Your task to perform on an android device: open a bookmark in the chrome app Image 0: 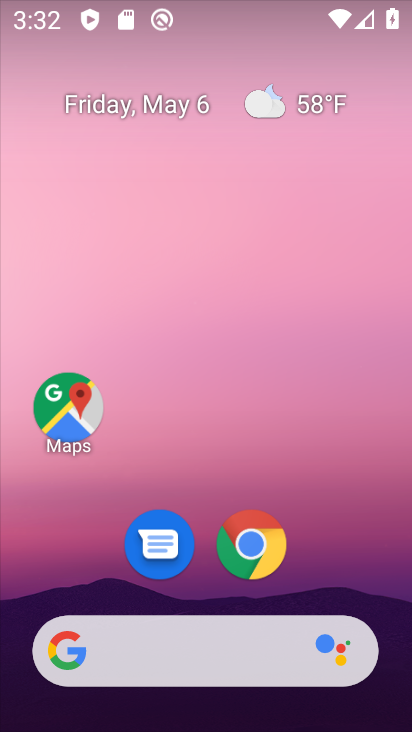
Step 0: click (260, 544)
Your task to perform on an android device: open a bookmark in the chrome app Image 1: 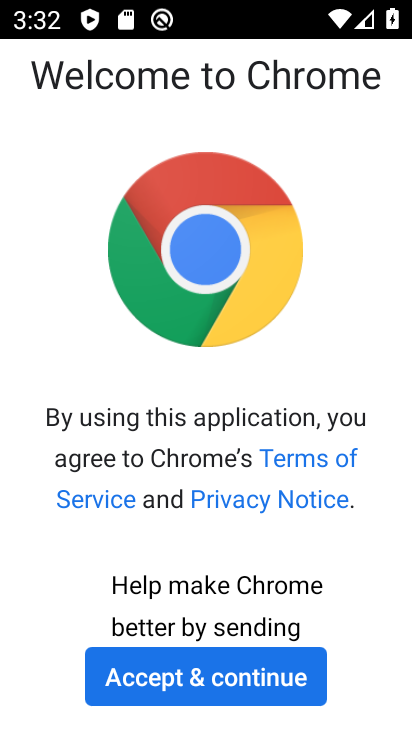
Step 1: click (266, 696)
Your task to perform on an android device: open a bookmark in the chrome app Image 2: 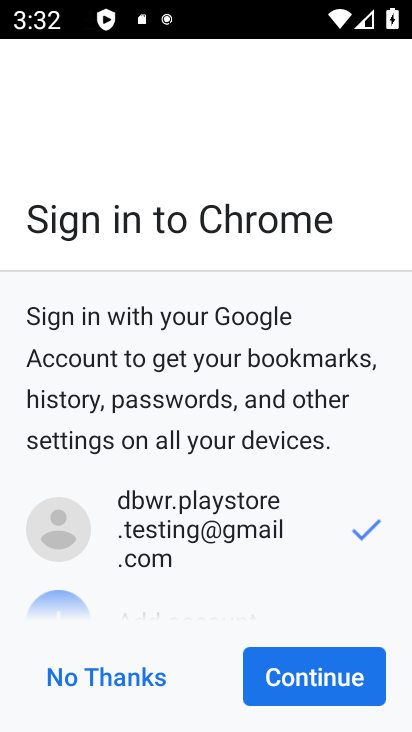
Step 2: click (291, 690)
Your task to perform on an android device: open a bookmark in the chrome app Image 3: 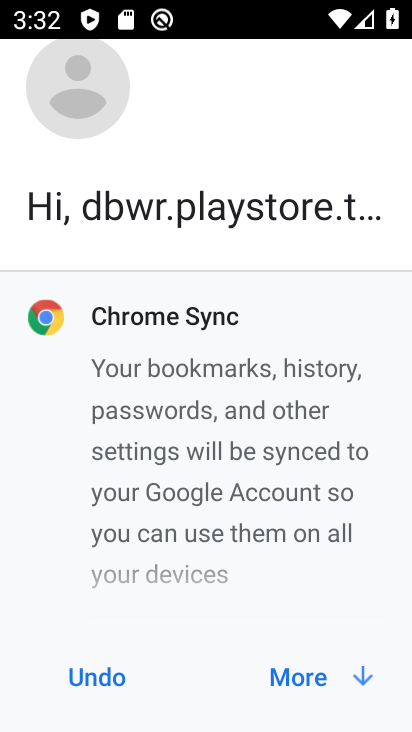
Step 3: click (292, 689)
Your task to perform on an android device: open a bookmark in the chrome app Image 4: 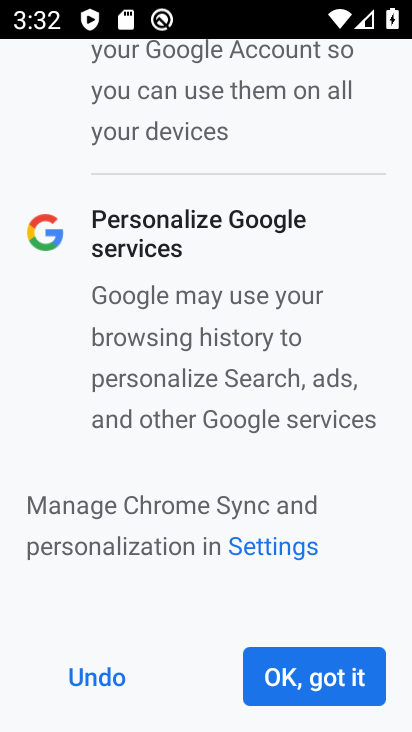
Step 4: click (292, 689)
Your task to perform on an android device: open a bookmark in the chrome app Image 5: 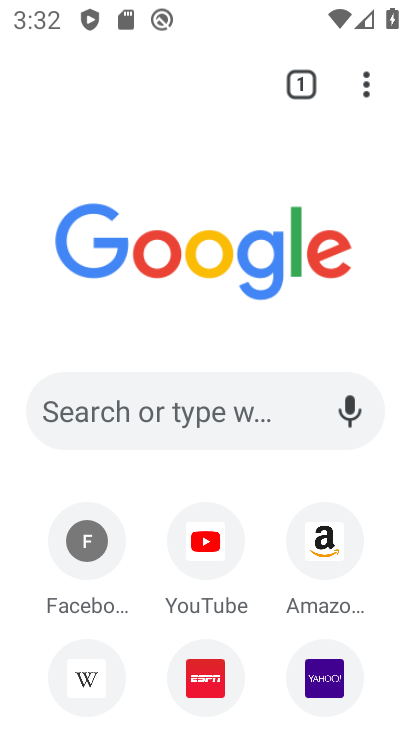
Step 5: task complete